Your task to perform on an android device: Open location settings Image 0: 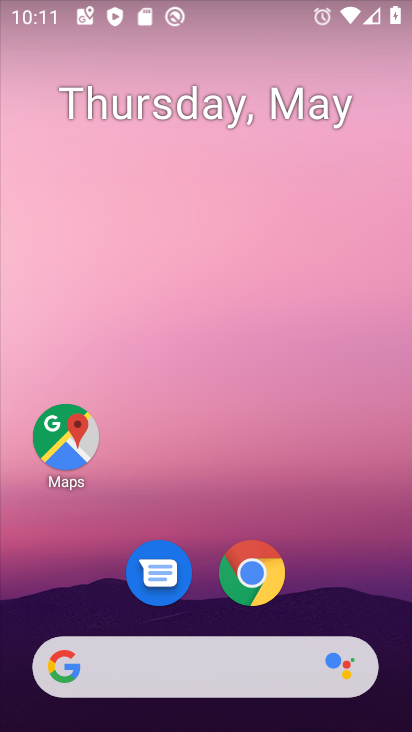
Step 0: drag from (196, 603) to (204, 120)
Your task to perform on an android device: Open location settings Image 1: 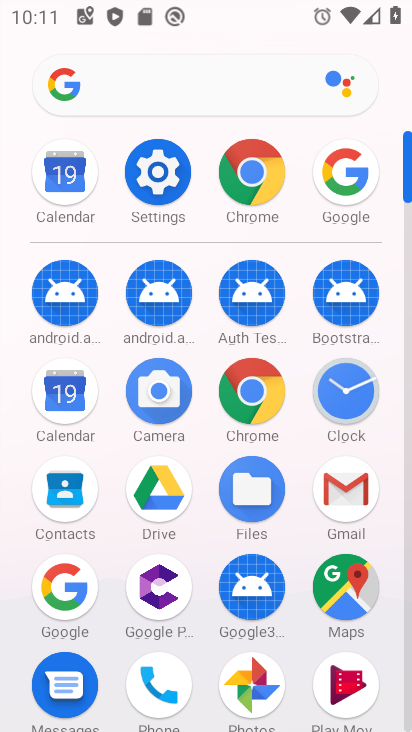
Step 1: click (181, 158)
Your task to perform on an android device: Open location settings Image 2: 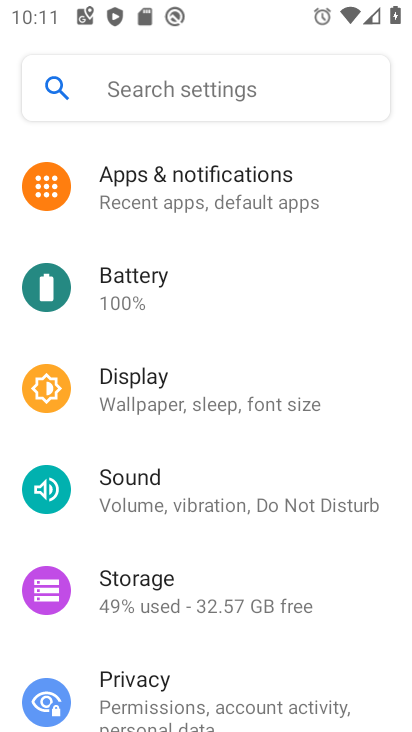
Step 2: drag from (181, 628) to (225, 251)
Your task to perform on an android device: Open location settings Image 3: 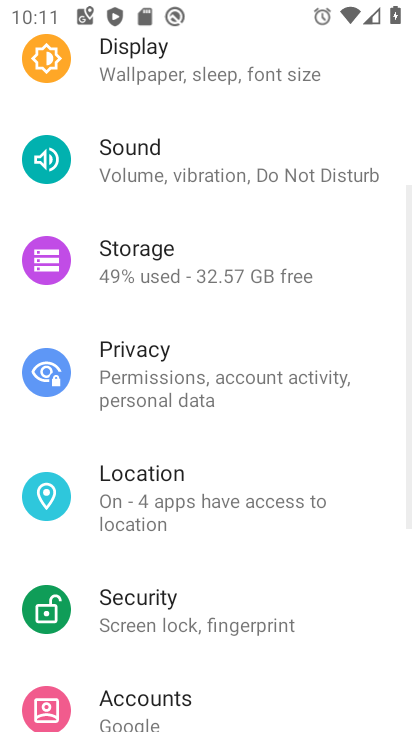
Step 3: click (210, 508)
Your task to perform on an android device: Open location settings Image 4: 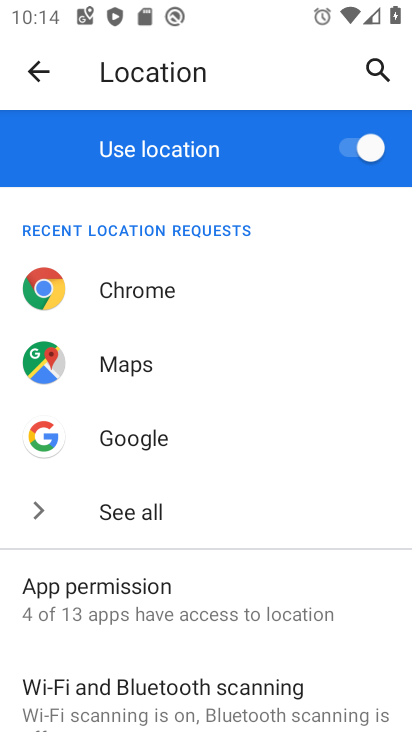
Step 4: task complete